Your task to perform on an android device: turn on data saver in the chrome app Image 0: 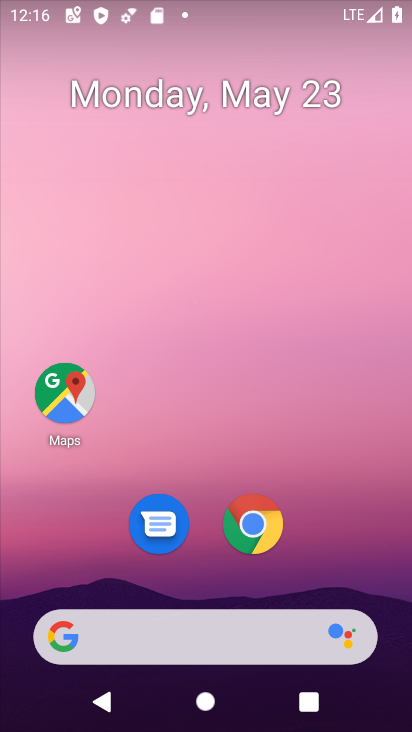
Step 0: click (257, 536)
Your task to perform on an android device: turn on data saver in the chrome app Image 1: 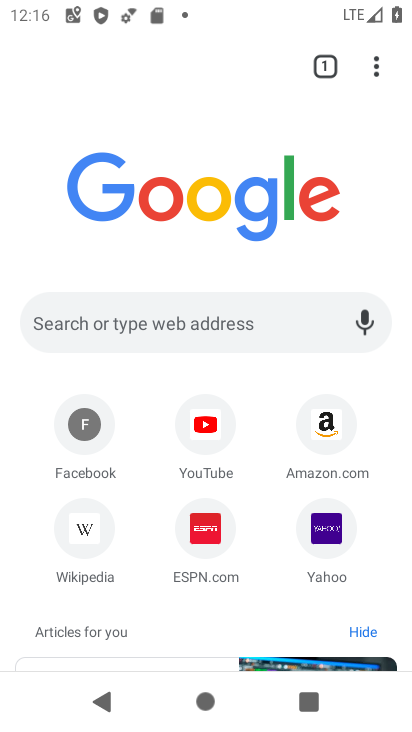
Step 1: click (372, 67)
Your task to perform on an android device: turn on data saver in the chrome app Image 2: 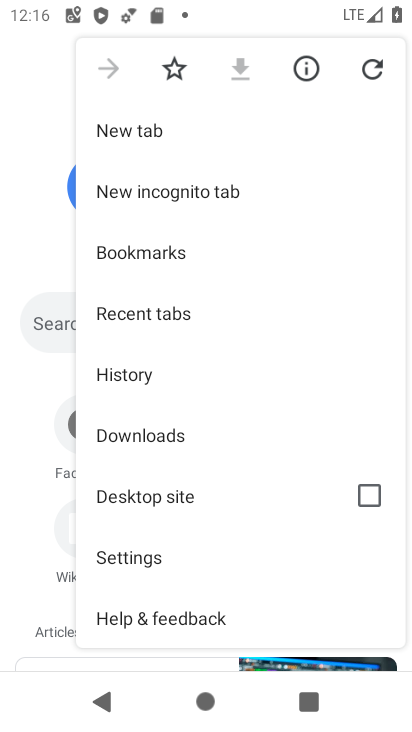
Step 2: click (179, 546)
Your task to perform on an android device: turn on data saver in the chrome app Image 3: 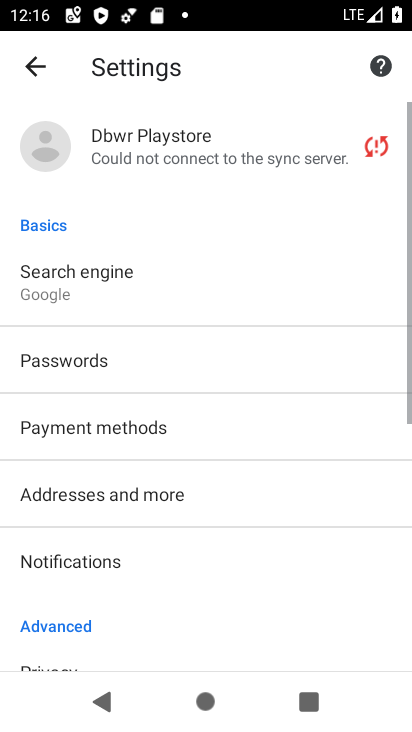
Step 3: drag from (262, 562) to (289, 132)
Your task to perform on an android device: turn on data saver in the chrome app Image 4: 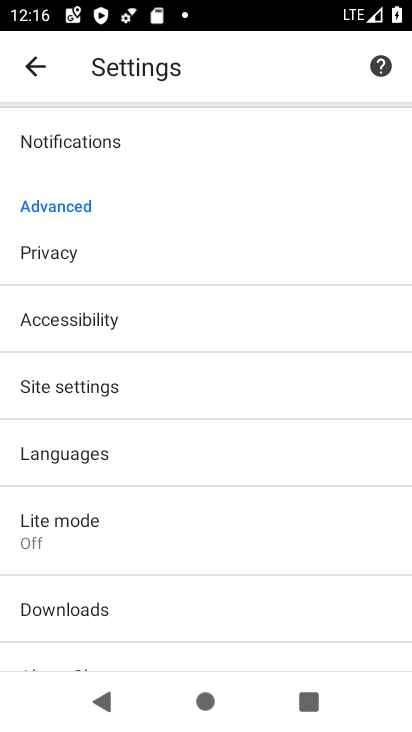
Step 4: click (166, 546)
Your task to perform on an android device: turn on data saver in the chrome app Image 5: 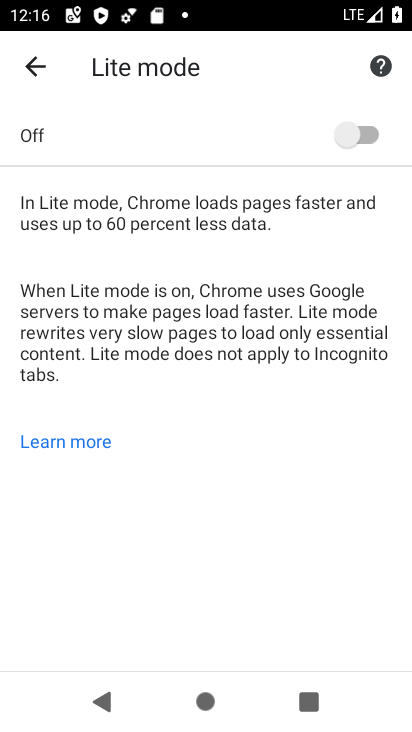
Step 5: click (371, 133)
Your task to perform on an android device: turn on data saver in the chrome app Image 6: 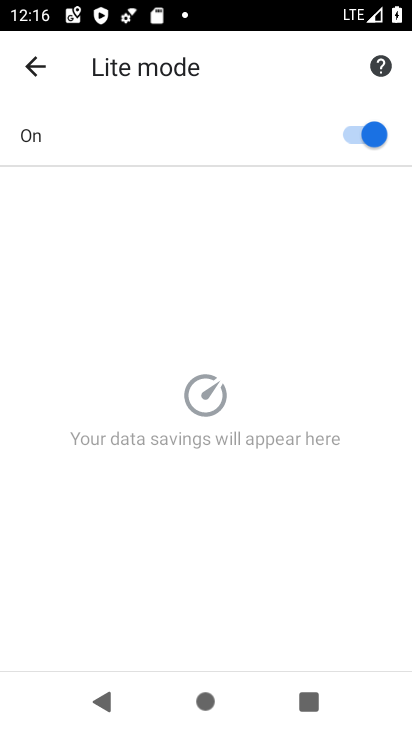
Step 6: task complete